Your task to perform on an android device: Open location settings Image 0: 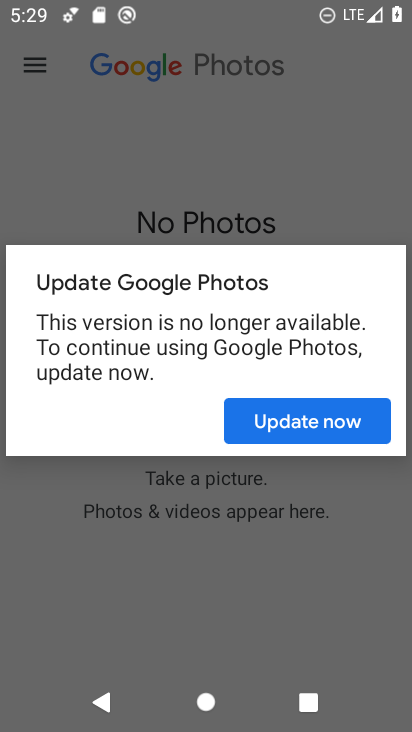
Step 0: press home button
Your task to perform on an android device: Open location settings Image 1: 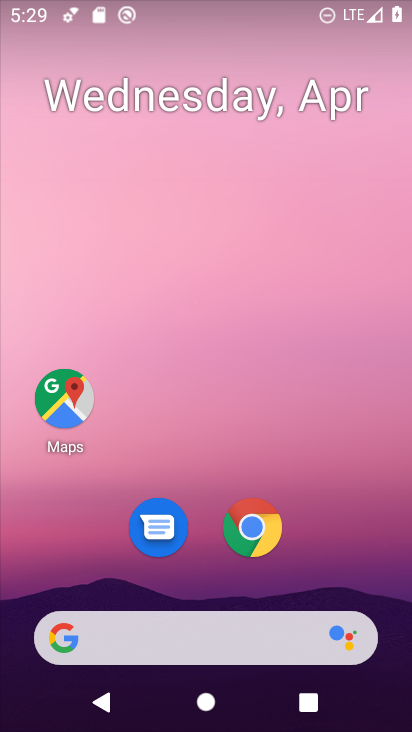
Step 1: drag from (374, 591) to (349, 25)
Your task to perform on an android device: Open location settings Image 2: 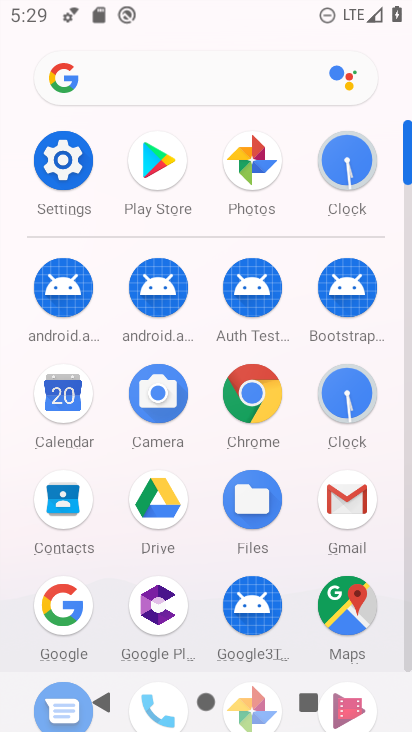
Step 2: click (59, 164)
Your task to perform on an android device: Open location settings Image 3: 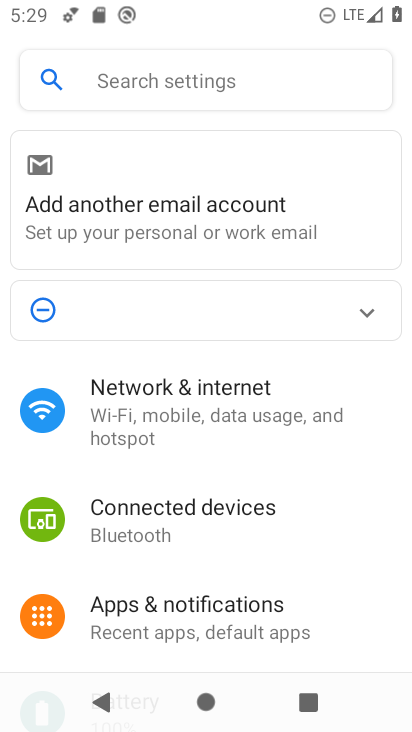
Step 3: drag from (319, 446) to (291, 10)
Your task to perform on an android device: Open location settings Image 4: 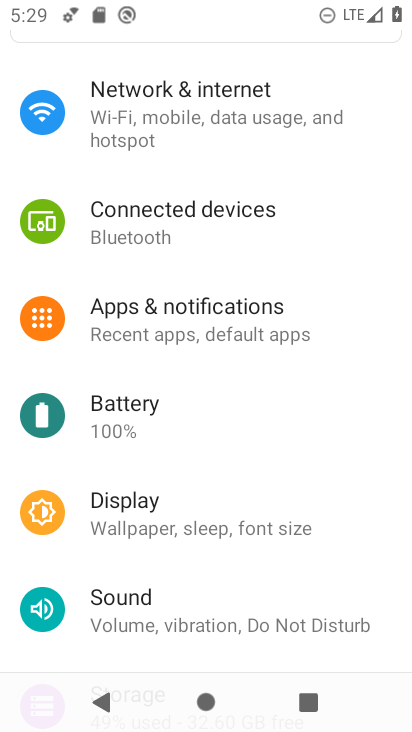
Step 4: drag from (260, 490) to (253, 91)
Your task to perform on an android device: Open location settings Image 5: 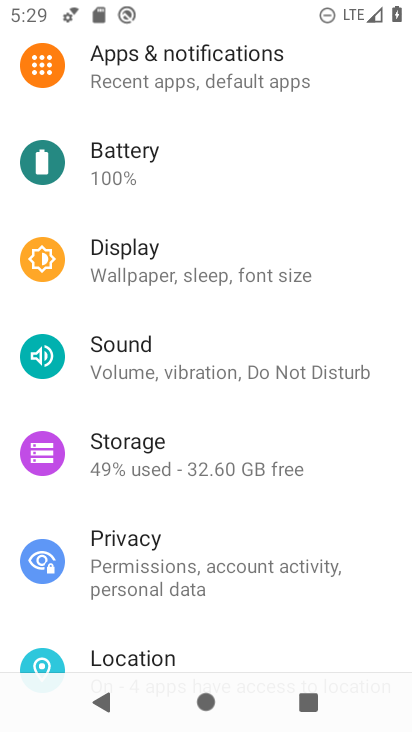
Step 5: click (115, 662)
Your task to perform on an android device: Open location settings Image 6: 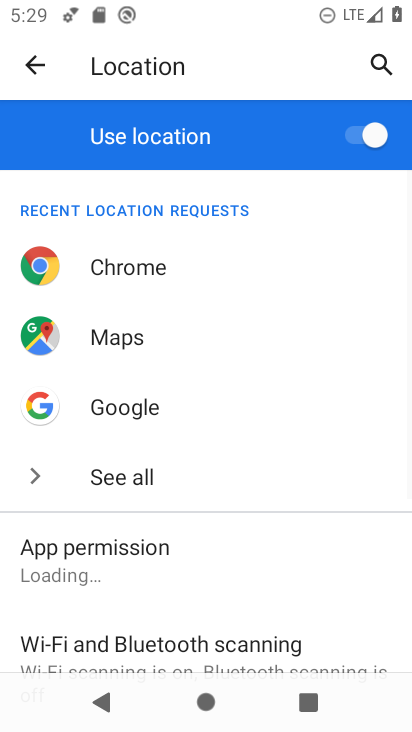
Step 6: task complete